Your task to perform on an android device: set default search engine in the chrome app Image 0: 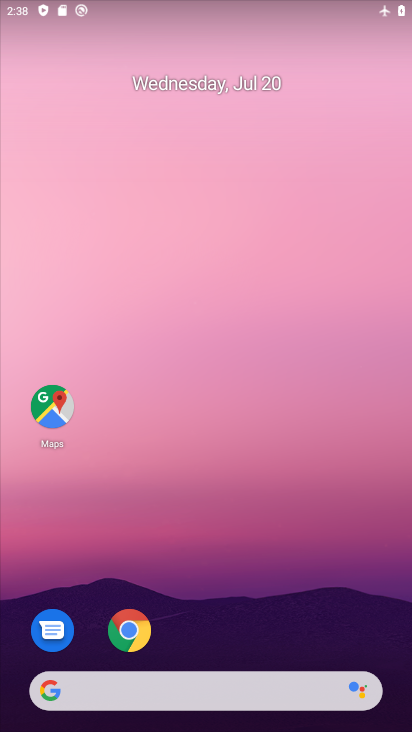
Step 0: drag from (214, 705) to (170, 196)
Your task to perform on an android device: set default search engine in the chrome app Image 1: 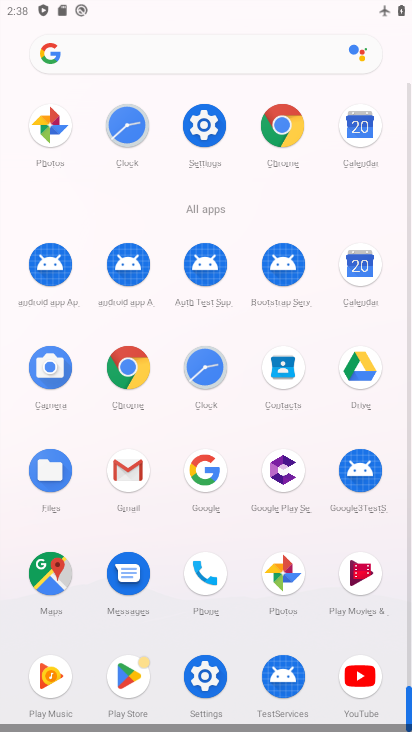
Step 1: click (209, 121)
Your task to perform on an android device: set default search engine in the chrome app Image 2: 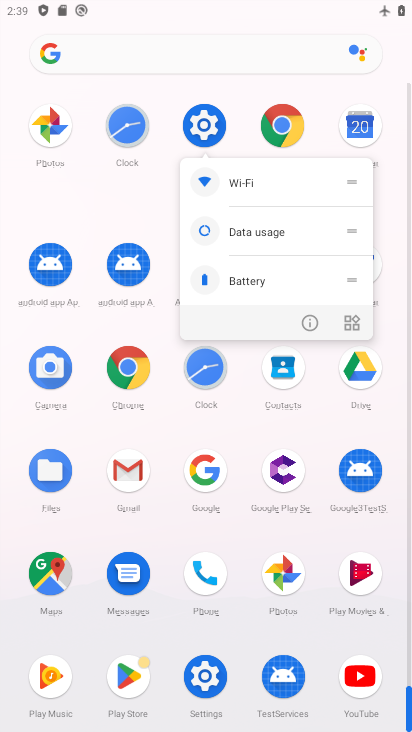
Step 2: click (276, 129)
Your task to perform on an android device: set default search engine in the chrome app Image 3: 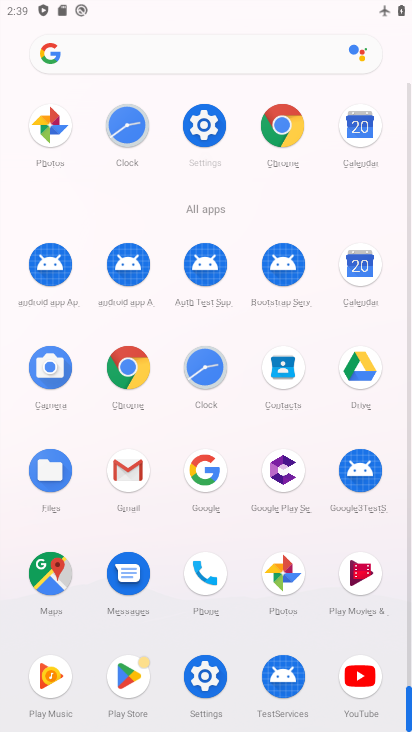
Step 3: click (277, 128)
Your task to perform on an android device: set default search engine in the chrome app Image 4: 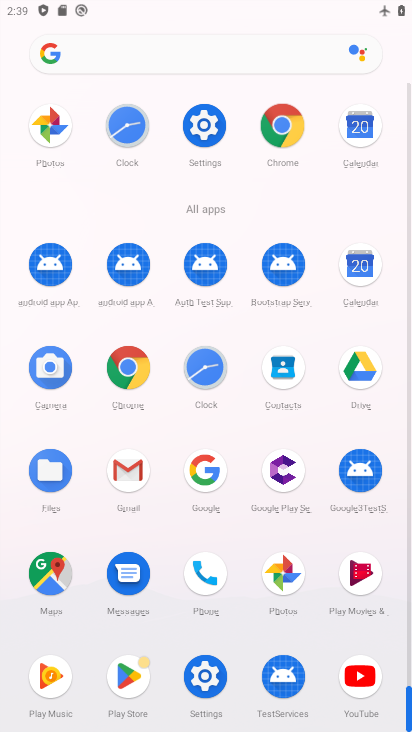
Step 4: click (277, 128)
Your task to perform on an android device: set default search engine in the chrome app Image 5: 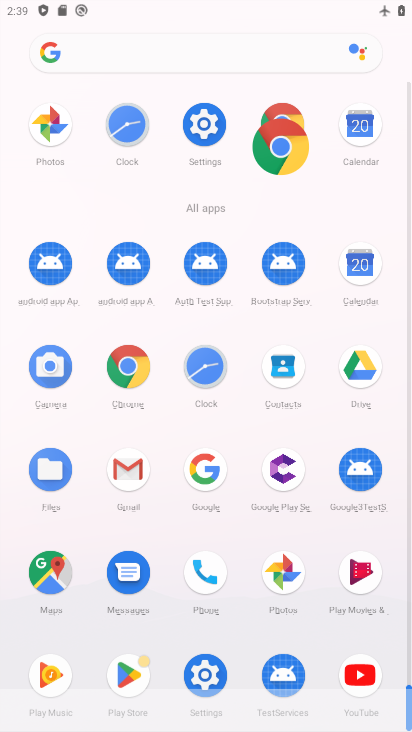
Step 5: click (277, 128)
Your task to perform on an android device: set default search engine in the chrome app Image 6: 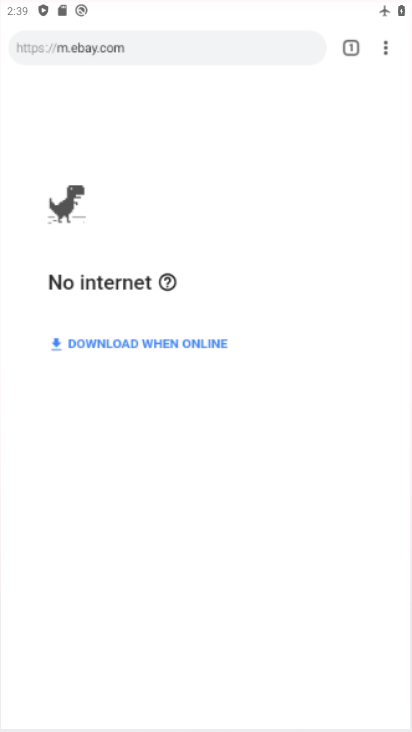
Step 6: click (277, 128)
Your task to perform on an android device: set default search engine in the chrome app Image 7: 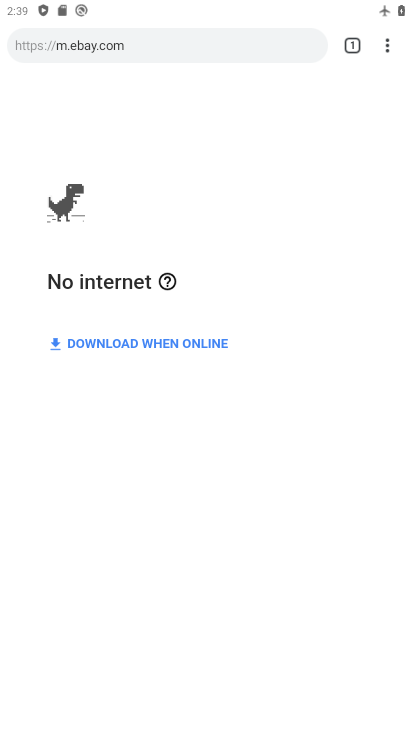
Step 7: drag from (389, 48) to (224, 500)
Your task to perform on an android device: set default search engine in the chrome app Image 8: 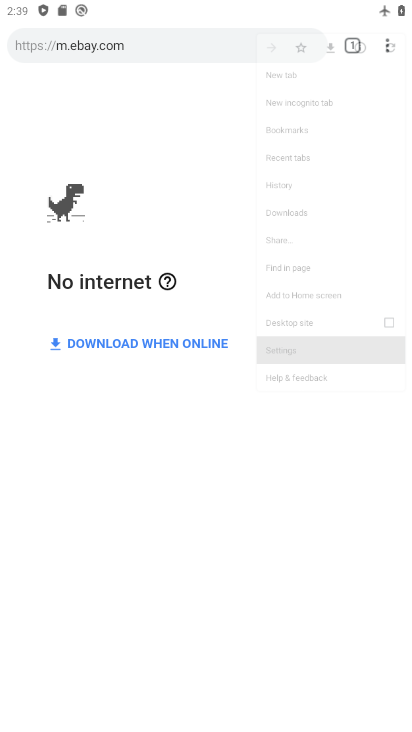
Step 8: click (219, 503)
Your task to perform on an android device: set default search engine in the chrome app Image 9: 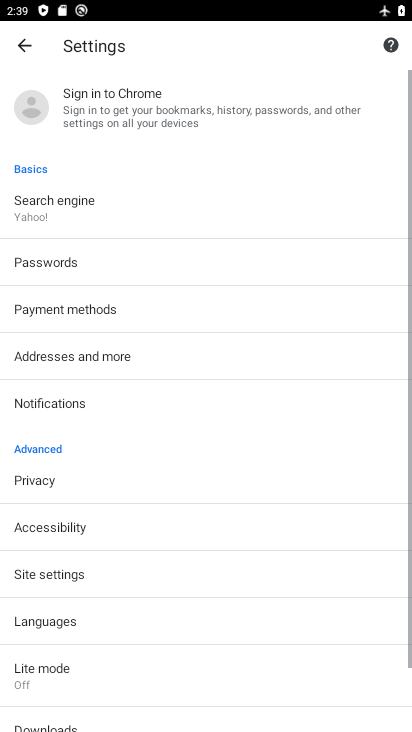
Step 9: click (34, 202)
Your task to perform on an android device: set default search engine in the chrome app Image 10: 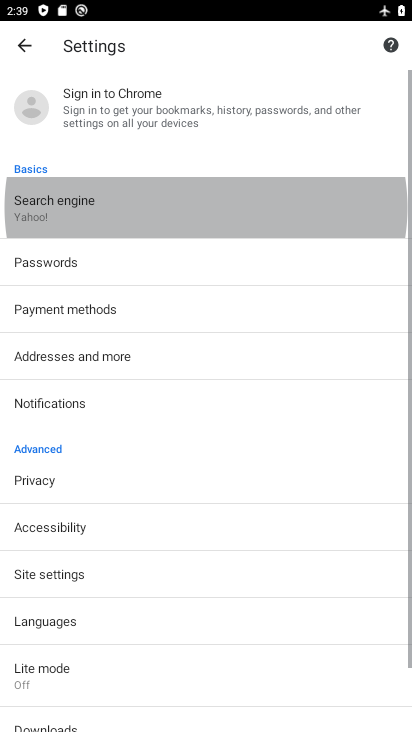
Step 10: click (34, 202)
Your task to perform on an android device: set default search engine in the chrome app Image 11: 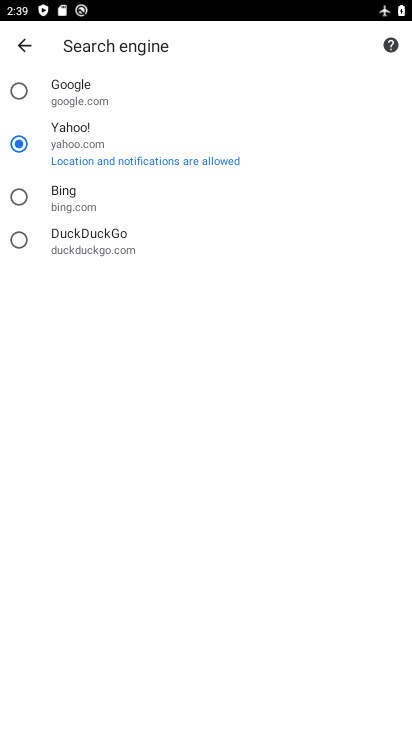
Step 11: click (23, 86)
Your task to perform on an android device: set default search engine in the chrome app Image 12: 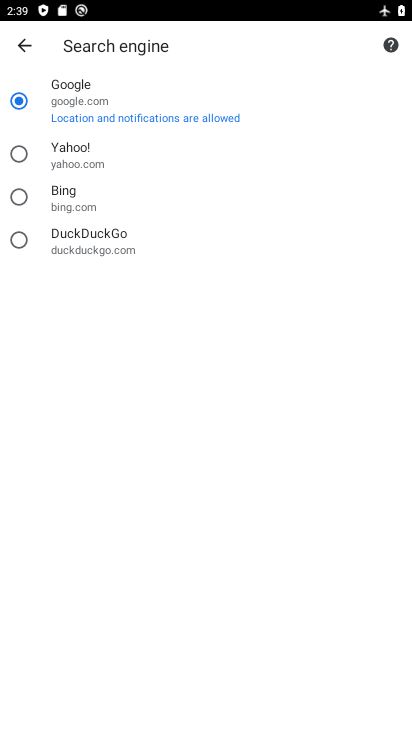
Step 12: task complete